Your task to perform on an android device: install app "ZOOM Cloud Meetings" Image 0: 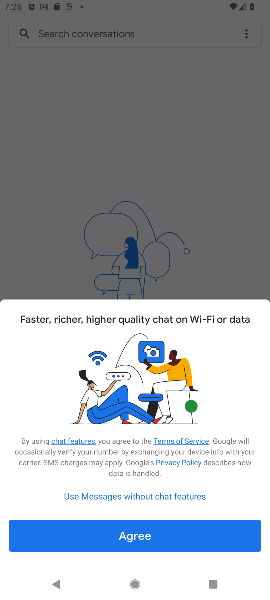
Step 0: press home button
Your task to perform on an android device: install app "ZOOM Cloud Meetings" Image 1: 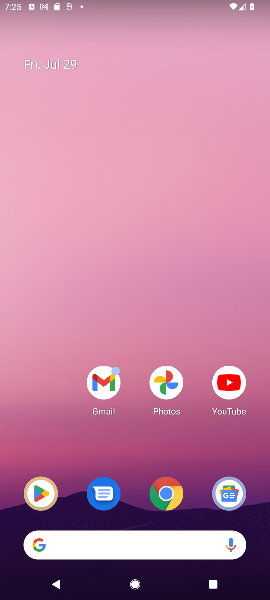
Step 1: drag from (156, 591) to (153, 159)
Your task to perform on an android device: install app "ZOOM Cloud Meetings" Image 2: 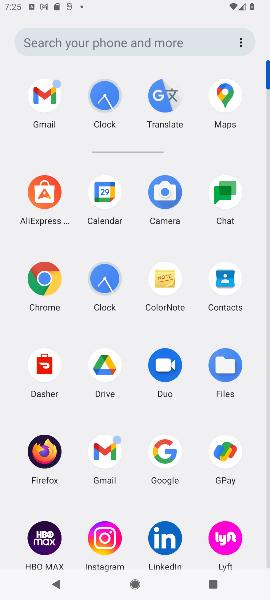
Step 2: drag from (131, 505) to (118, 238)
Your task to perform on an android device: install app "ZOOM Cloud Meetings" Image 3: 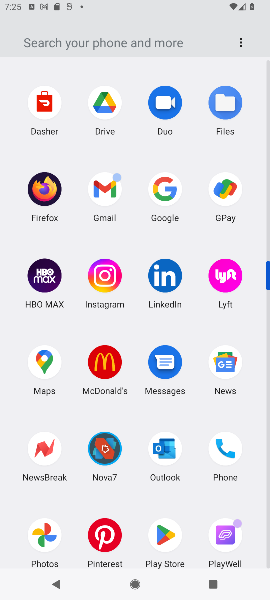
Step 3: click (163, 536)
Your task to perform on an android device: install app "ZOOM Cloud Meetings" Image 4: 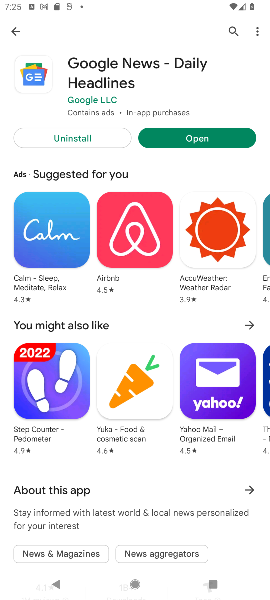
Step 4: click (230, 29)
Your task to perform on an android device: install app "ZOOM Cloud Meetings" Image 5: 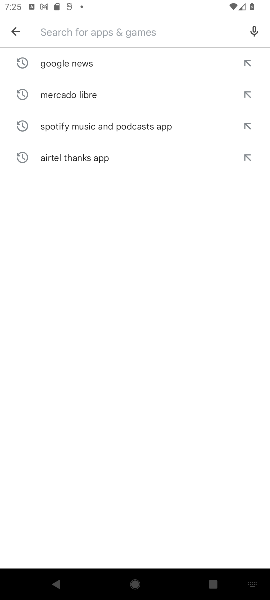
Step 5: type "ZOOM Cloud Meetings"
Your task to perform on an android device: install app "ZOOM Cloud Meetings" Image 6: 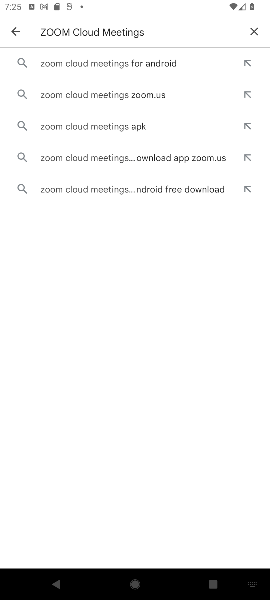
Step 6: click (87, 62)
Your task to perform on an android device: install app "ZOOM Cloud Meetings" Image 7: 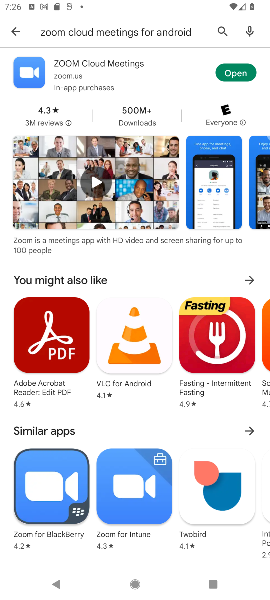
Step 7: click (90, 76)
Your task to perform on an android device: install app "ZOOM Cloud Meetings" Image 8: 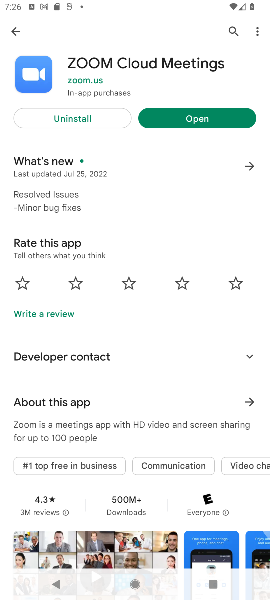
Step 8: task complete